Your task to perform on an android device: allow cookies in the chrome app Image 0: 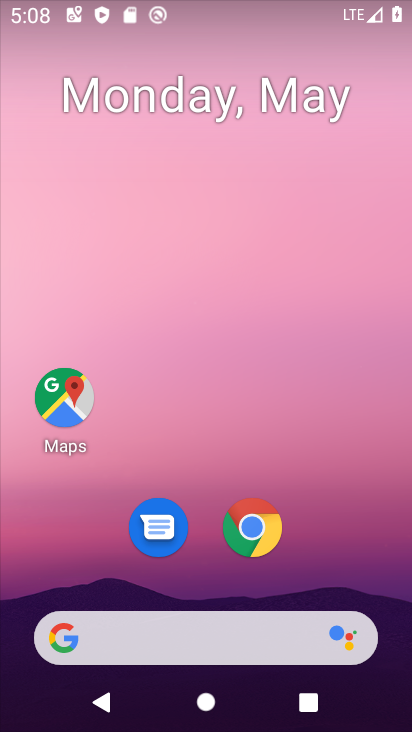
Step 0: click (271, 523)
Your task to perform on an android device: allow cookies in the chrome app Image 1: 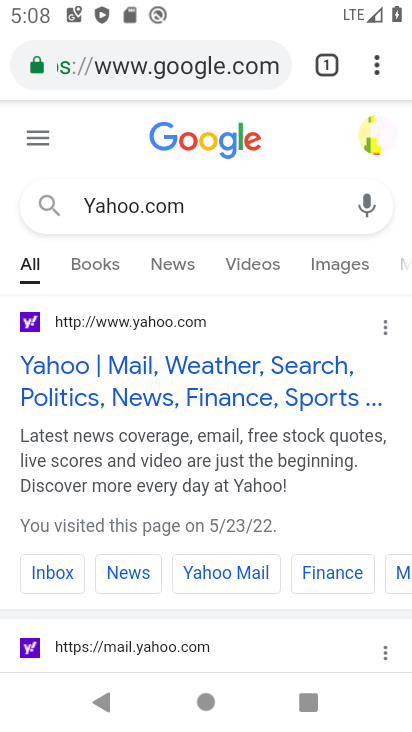
Step 1: click (376, 61)
Your task to perform on an android device: allow cookies in the chrome app Image 2: 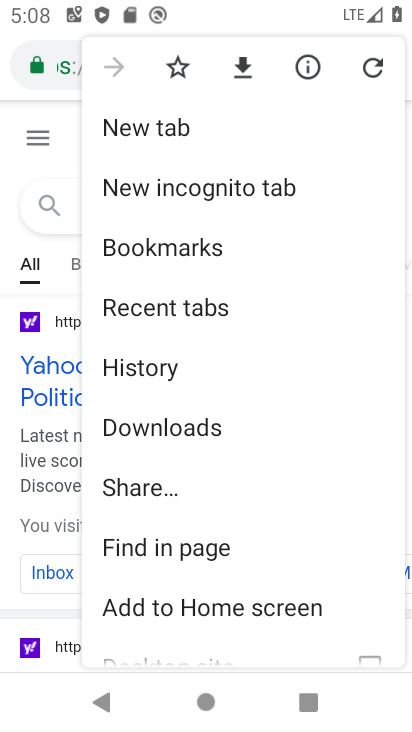
Step 2: drag from (324, 504) to (329, 194)
Your task to perform on an android device: allow cookies in the chrome app Image 3: 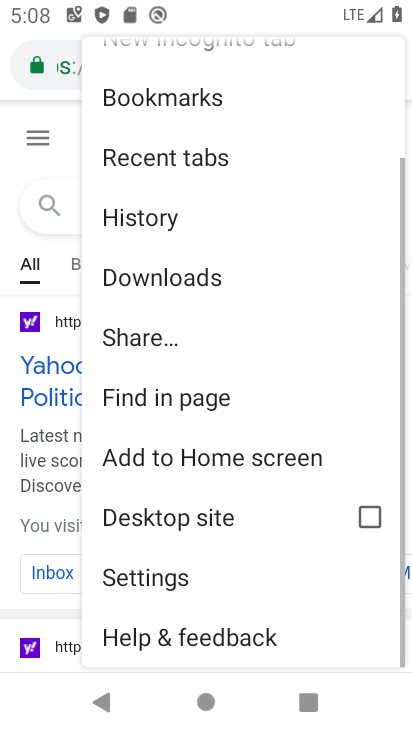
Step 3: click (133, 567)
Your task to perform on an android device: allow cookies in the chrome app Image 4: 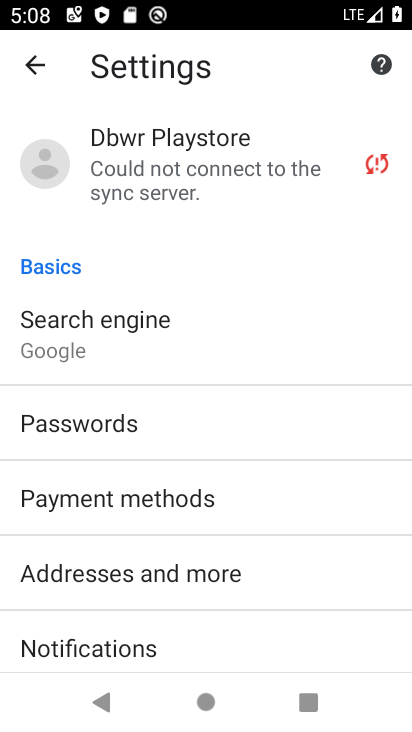
Step 4: drag from (319, 477) to (317, 212)
Your task to perform on an android device: allow cookies in the chrome app Image 5: 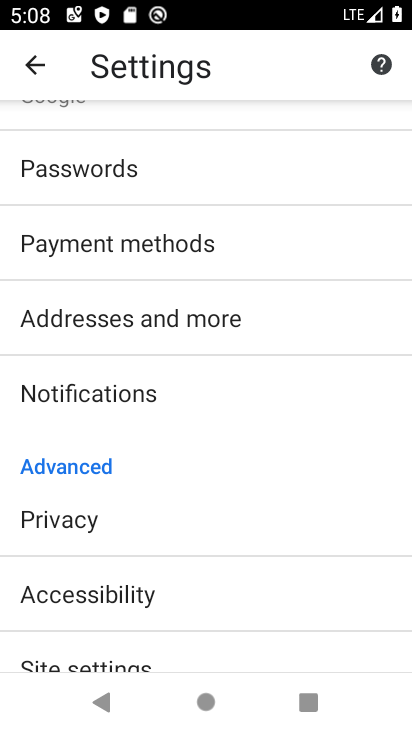
Step 5: click (128, 660)
Your task to perform on an android device: allow cookies in the chrome app Image 6: 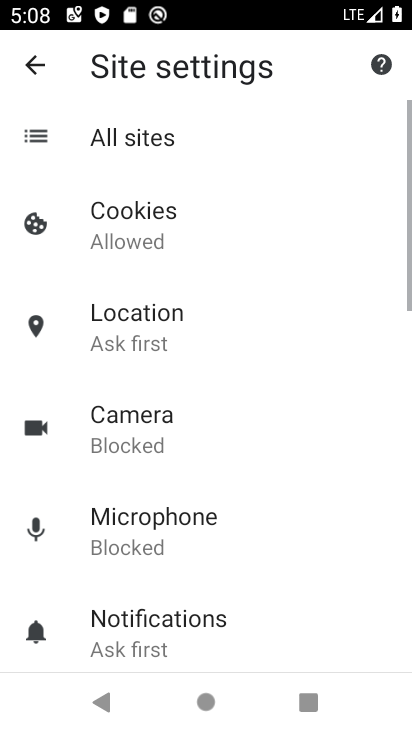
Step 6: click (117, 221)
Your task to perform on an android device: allow cookies in the chrome app Image 7: 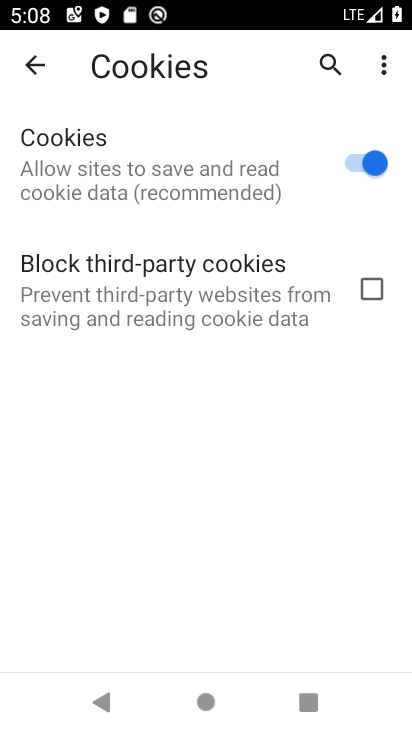
Step 7: task complete